Your task to perform on an android device: Go to CNN.com Image 0: 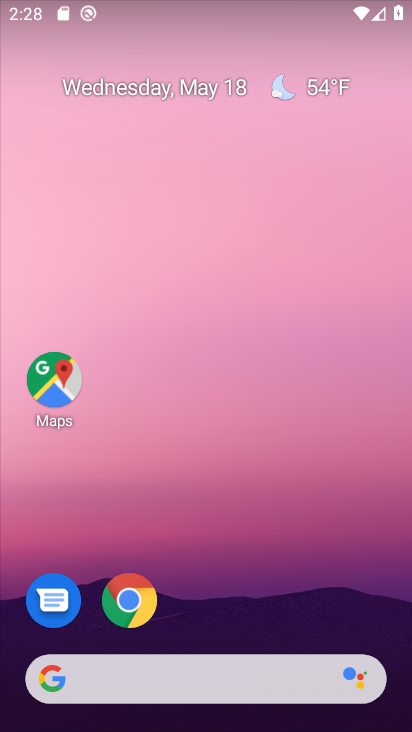
Step 0: click (149, 605)
Your task to perform on an android device: Go to CNN.com Image 1: 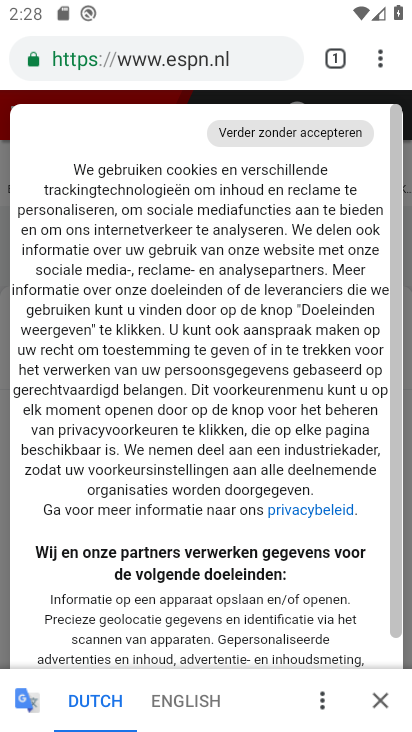
Step 1: click (170, 56)
Your task to perform on an android device: Go to CNN.com Image 2: 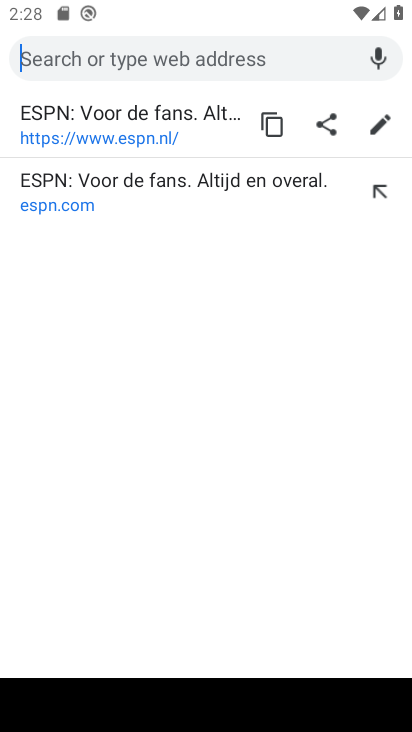
Step 2: type "CNN.com"
Your task to perform on an android device: Go to CNN.com Image 3: 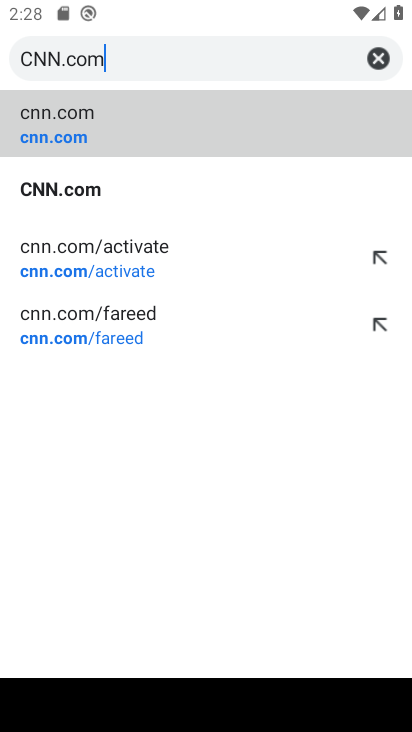
Step 3: click (136, 127)
Your task to perform on an android device: Go to CNN.com Image 4: 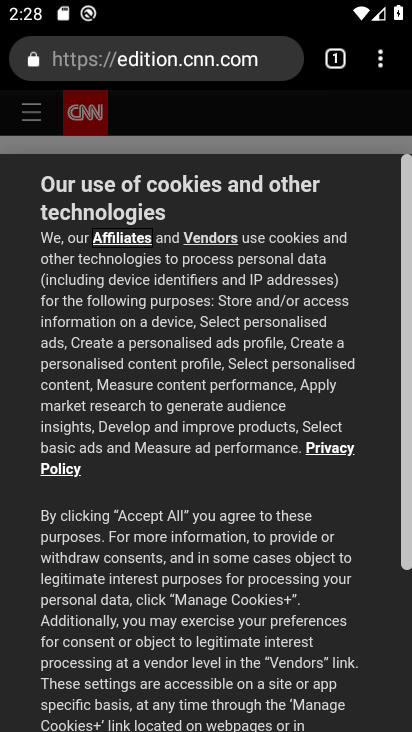
Step 4: task complete